Your task to perform on an android device: Open Google Image 0: 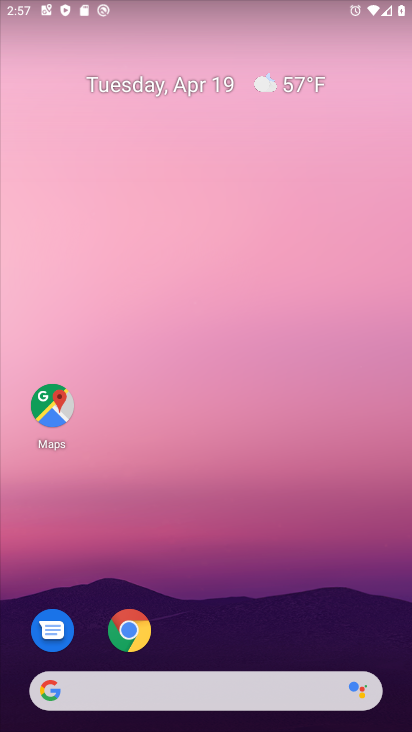
Step 0: click (194, 691)
Your task to perform on an android device: Open Google Image 1: 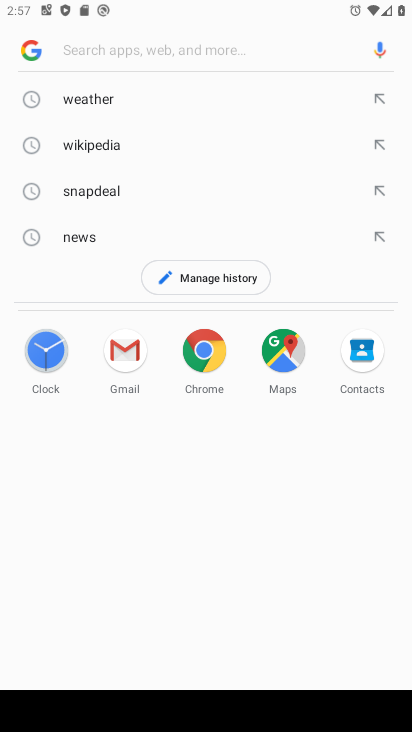
Step 1: task complete